Your task to perform on an android device: Open wifi settings Image 0: 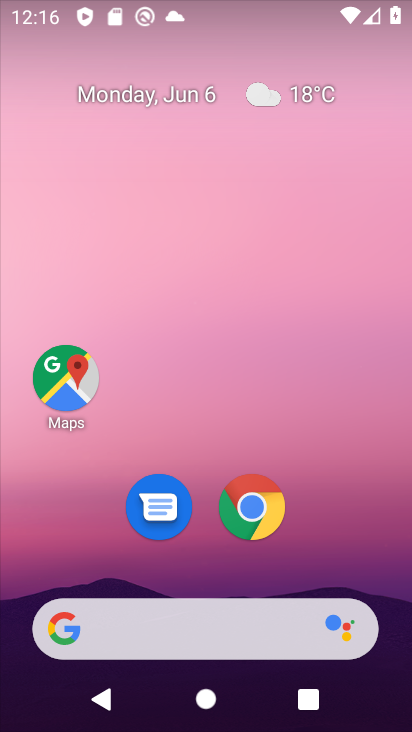
Step 0: drag from (223, 574) to (289, 109)
Your task to perform on an android device: Open wifi settings Image 1: 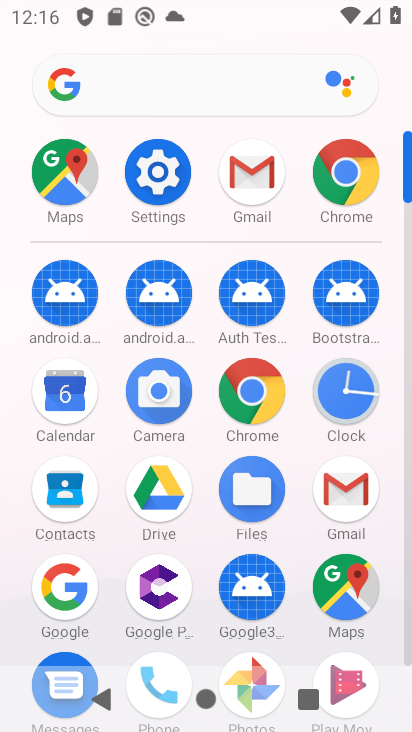
Step 1: click (167, 196)
Your task to perform on an android device: Open wifi settings Image 2: 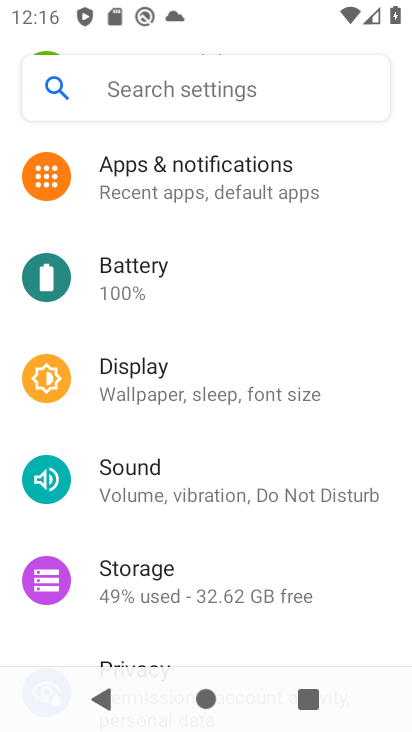
Step 2: drag from (184, 204) to (178, 333)
Your task to perform on an android device: Open wifi settings Image 3: 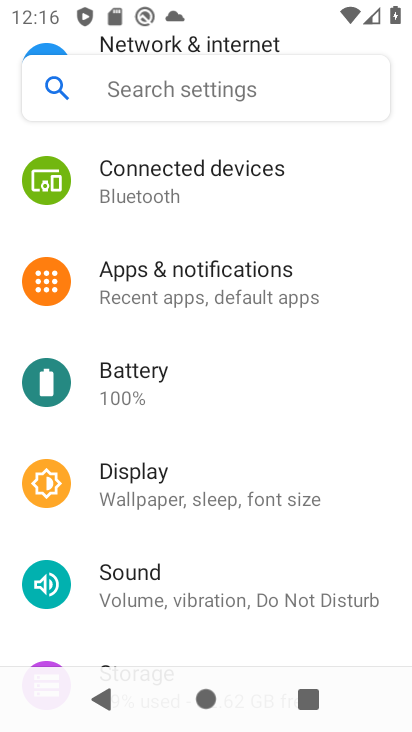
Step 3: drag from (145, 248) to (152, 536)
Your task to perform on an android device: Open wifi settings Image 4: 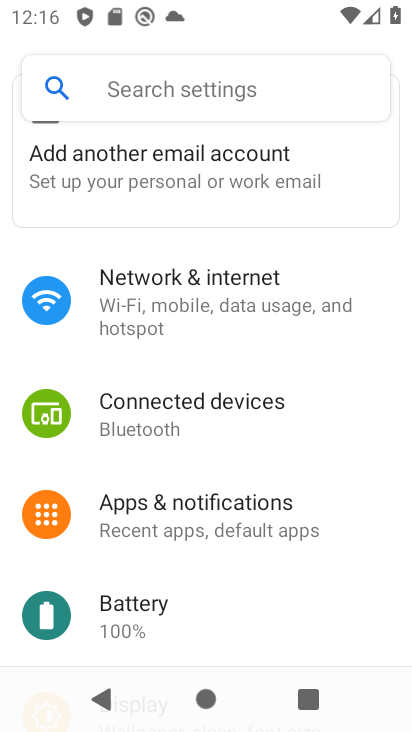
Step 4: click (202, 319)
Your task to perform on an android device: Open wifi settings Image 5: 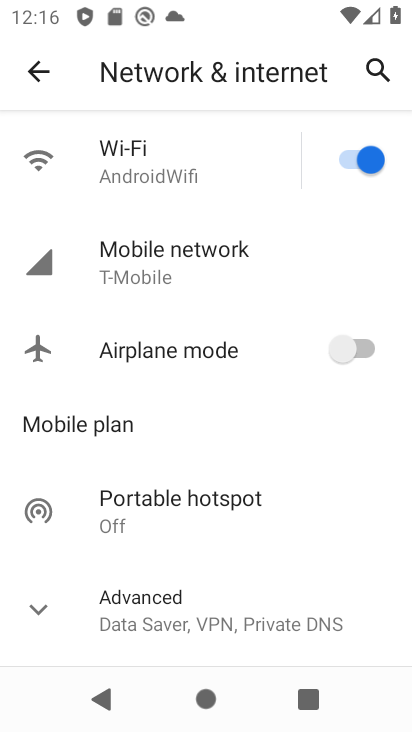
Step 5: click (161, 167)
Your task to perform on an android device: Open wifi settings Image 6: 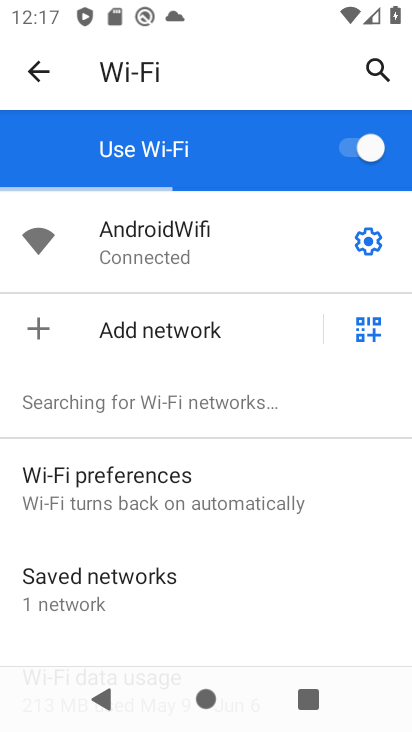
Step 6: task complete